Your task to perform on an android device: empty trash in google photos Image 0: 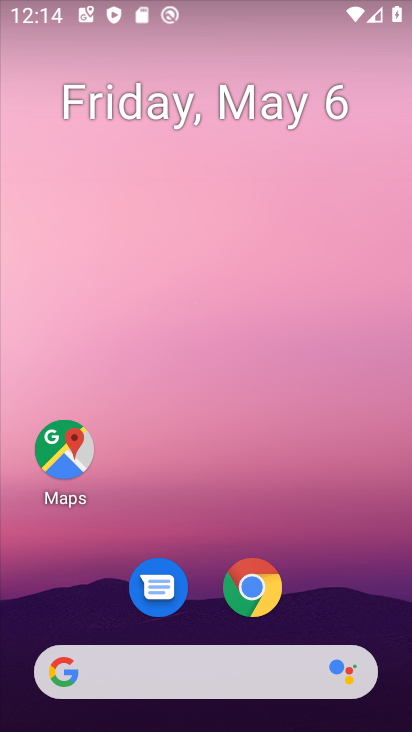
Step 0: drag from (215, 652) to (292, 42)
Your task to perform on an android device: empty trash in google photos Image 1: 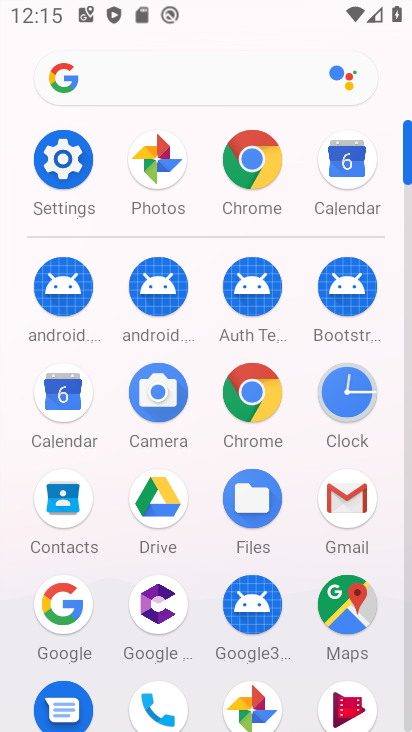
Step 1: click (252, 697)
Your task to perform on an android device: empty trash in google photos Image 2: 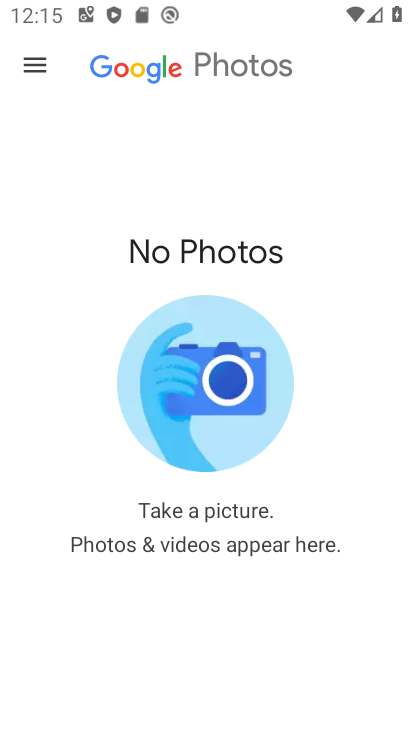
Step 2: click (30, 57)
Your task to perform on an android device: empty trash in google photos Image 3: 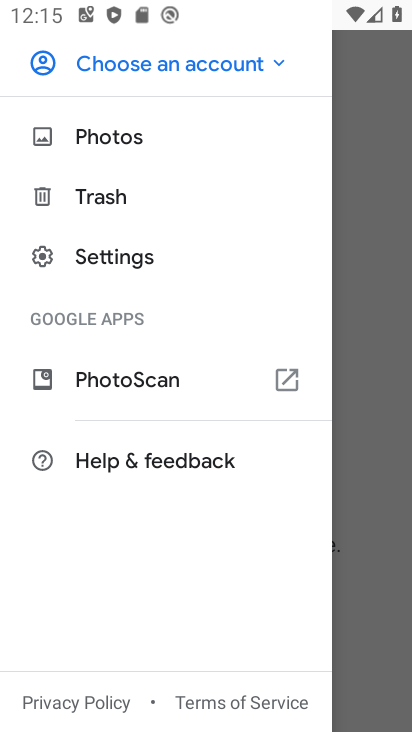
Step 3: click (95, 191)
Your task to perform on an android device: empty trash in google photos Image 4: 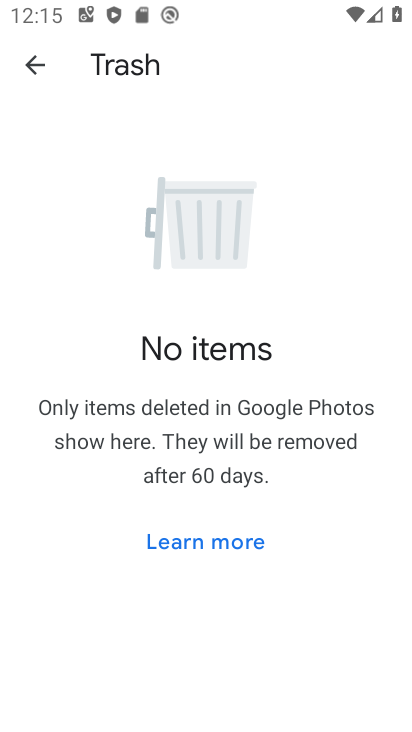
Step 4: task complete